Your task to perform on an android device: open the mobile data screen to see how much data has been used Image 0: 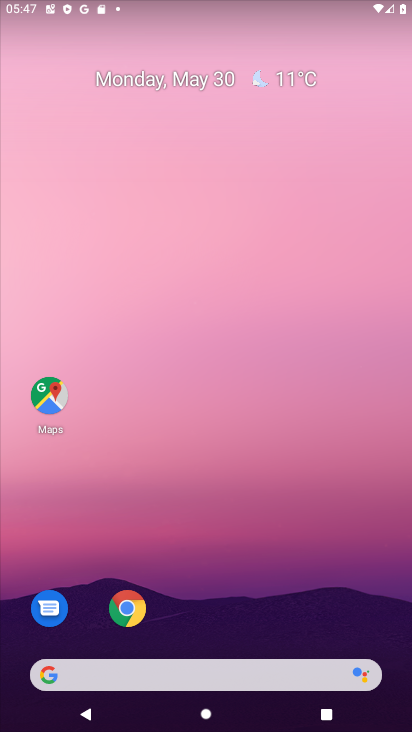
Step 0: drag from (227, 514) to (226, 209)
Your task to perform on an android device: open the mobile data screen to see how much data has been used Image 1: 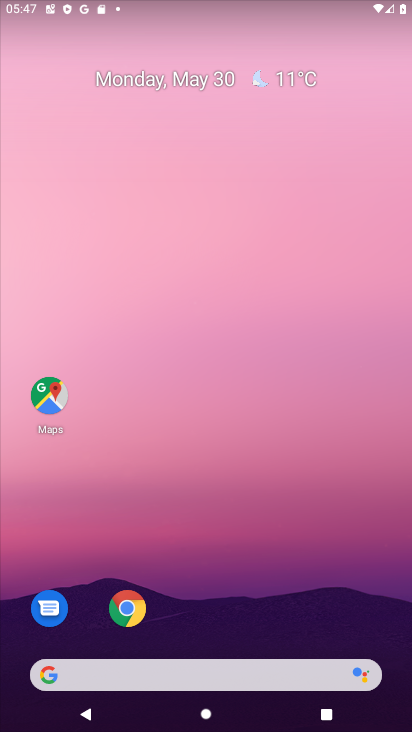
Step 1: drag from (267, 657) to (254, 207)
Your task to perform on an android device: open the mobile data screen to see how much data has been used Image 2: 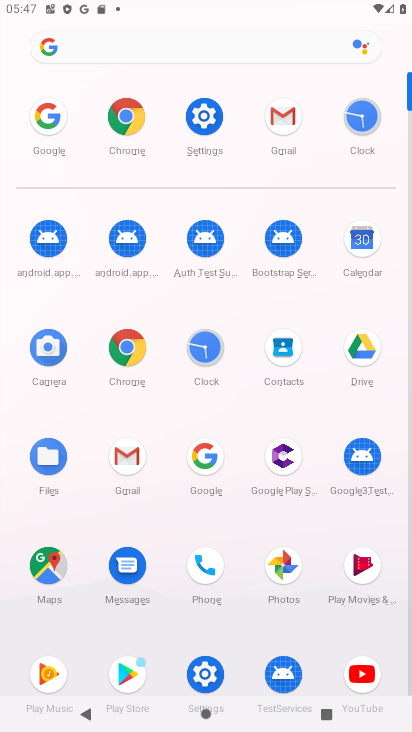
Step 2: click (195, 128)
Your task to perform on an android device: open the mobile data screen to see how much data has been used Image 3: 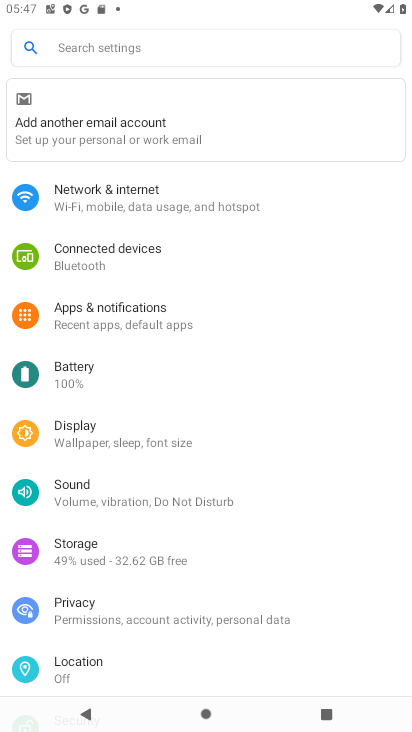
Step 3: click (184, 196)
Your task to perform on an android device: open the mobile data screen to see how much data has been used Image 4: 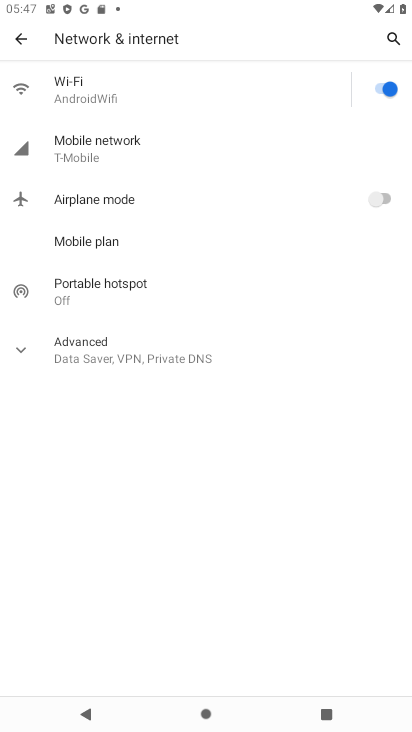
Step 4: click (92, 147)
Your task to perform on an android device: open the mobile data screen to see how much data has been used Image 5: 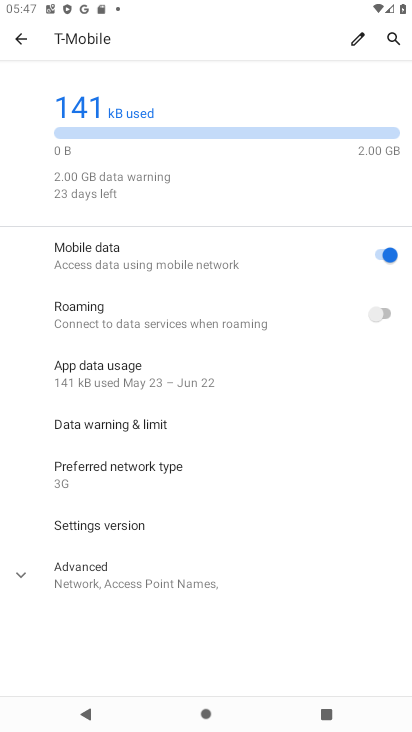
Step 5: task complete